Your task to perform on an android device: see sites visited before in the chrome app Image 0: 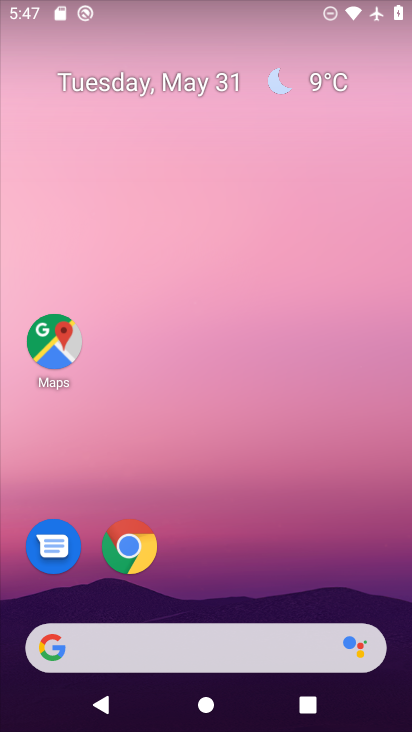
Step 0: drag from (237, 535) to (195, 11)
Your task to perform on an android device: see sites visited before in the chrome app Image 1: 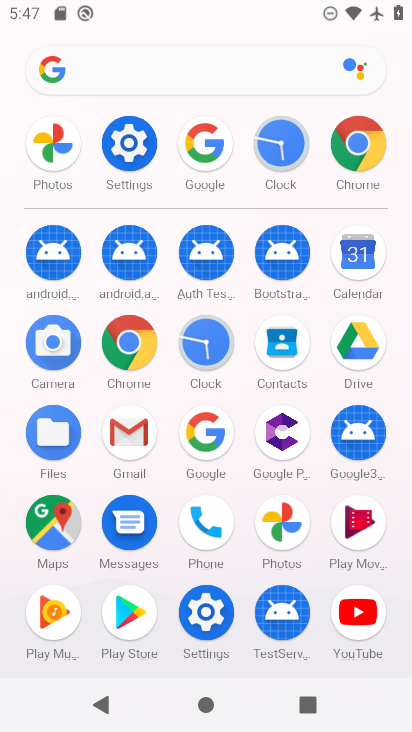
Step 1: click (361, 164)
Your task to perform on an android device: see sites visited before in the chrome app Image 2: 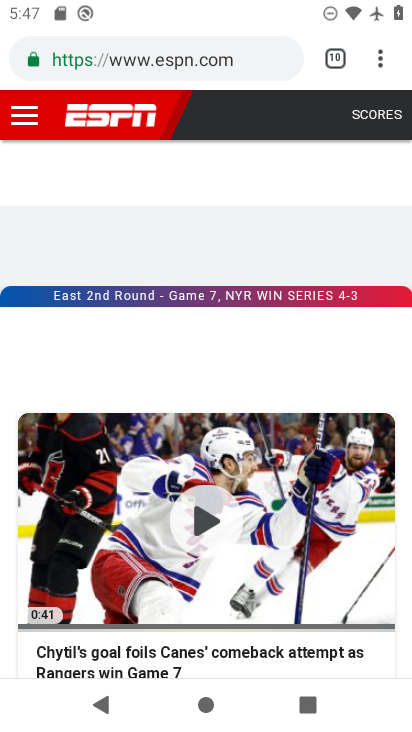
Step 2: click (377, 59)
Your task to perform on an android device: see sites visited before in the chrome app Image 3: 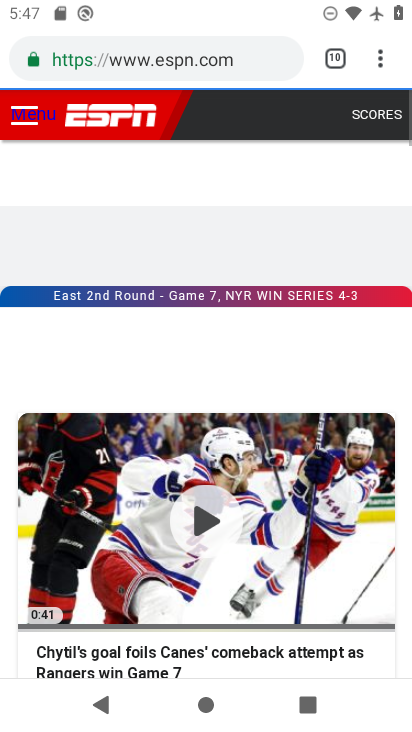
Step 3: click (371, 63)
Your task to perform on an android device: see sites visited before in the chrome app Image 4: 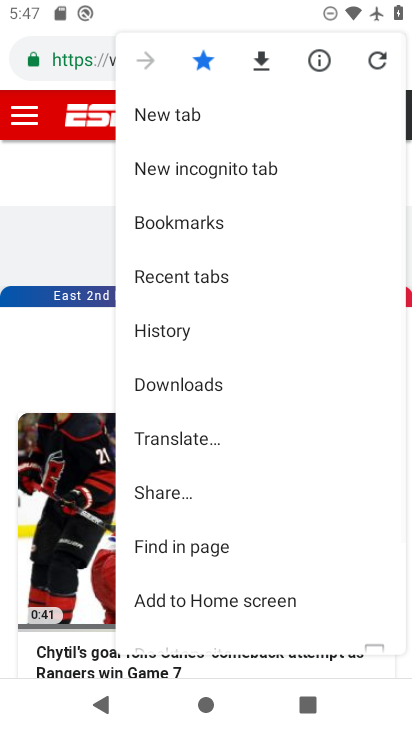
Step 4: click (209, 322)
Your task to perform on an android device: see sites visited before in the chrome app Image 5: 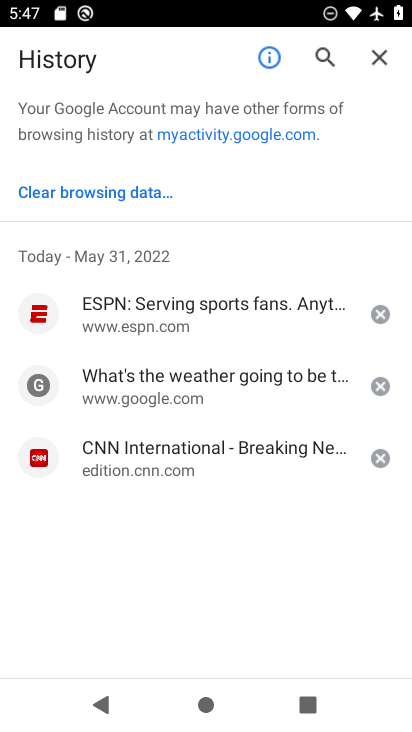
Step 5: task complete